Your task to perform on an android device: Search for seafood restaurants on Google Maps Image 0: 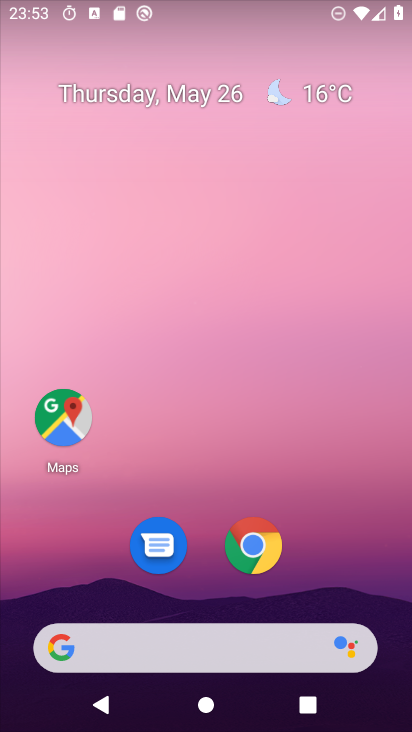
Step 0: press home button
Your task to perform on an android device: Search for seafood restaurants on Google Maps Image 1: 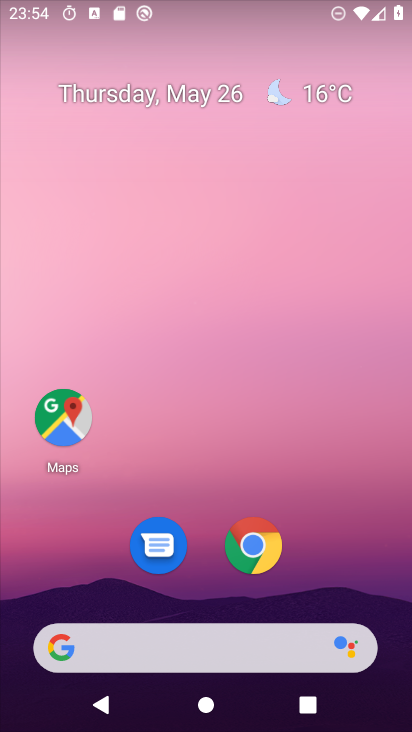
Step 1: click (57, 421)
Your task to perform on an android device: Search for seafood restaurants on Google Maps Image 2: 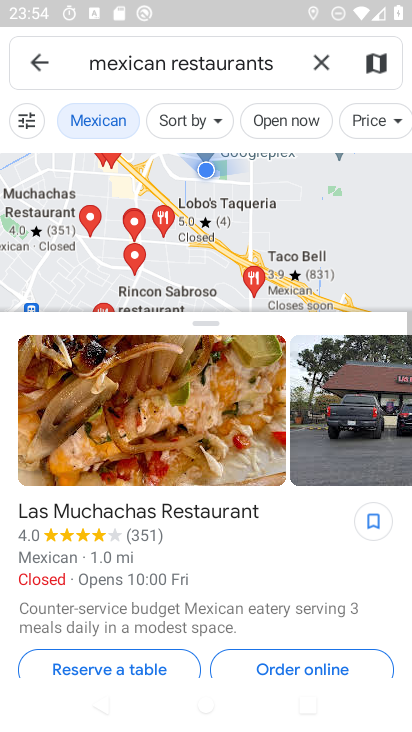
Step 2: click (319, 69)
Your task to perform on an android device: Search for seafood restaurants on Google Maps Image 3: 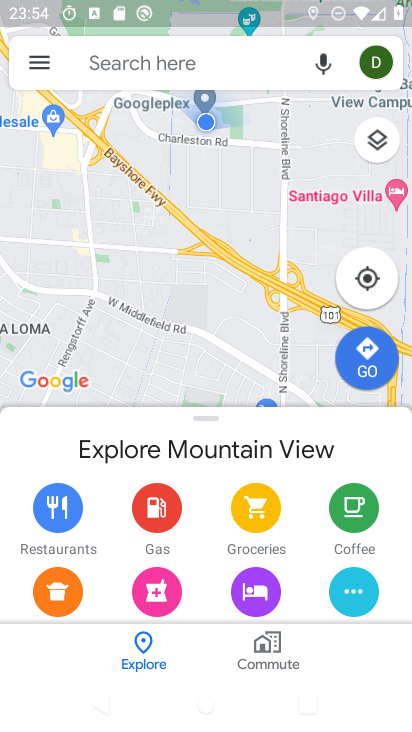
Step 3: click (148, 66)
Your task to perform on an android device: Search for seafood restaurants on Google Maps Image 4: 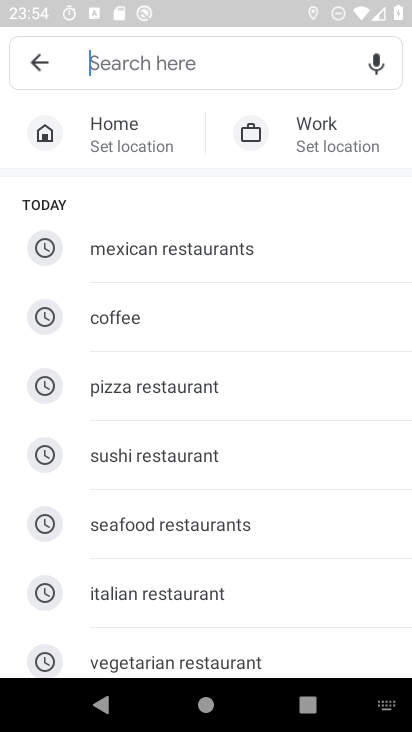
Step 4: click (160, 530)
Your task to perform on an android device: Search for seafood restaurants on Google Maps Image 5: 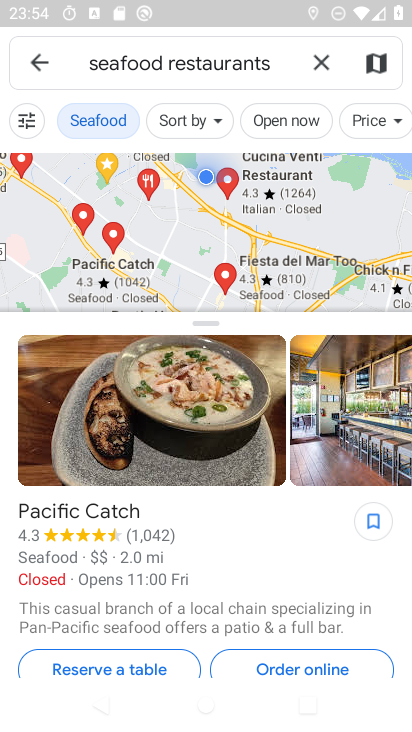
Step 5: task complete